Your task to perform on an android device: Open accessibility settings Image 0: 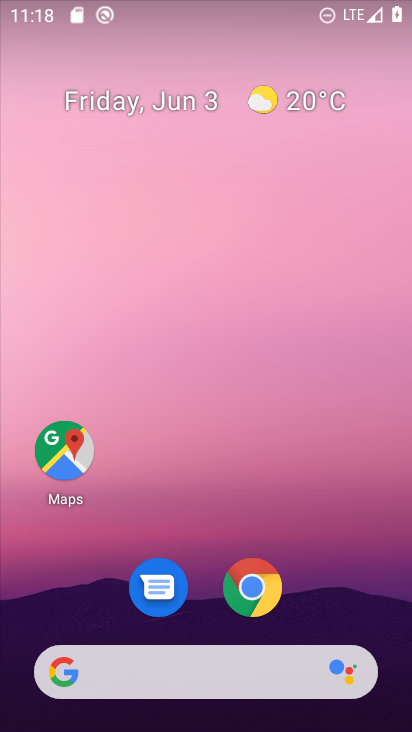
Step 0: drag from (378, 549) to (288, 10)
Your task to perform on an android device: Open accessibility settings Image 1: 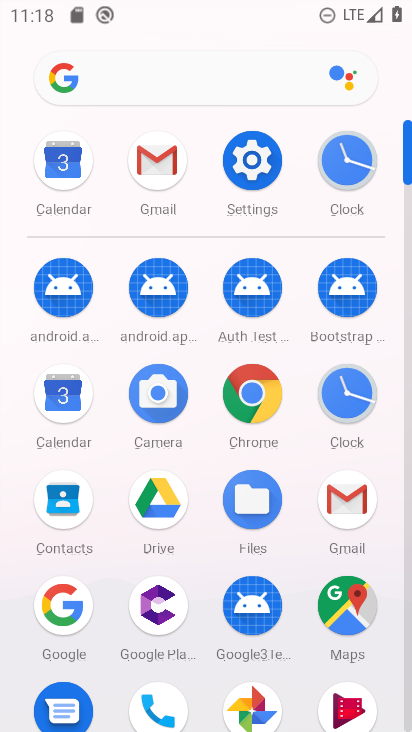
Step 1: click (253, 161)
Your task to perform on an android device: Open accessibility settings Image 2: 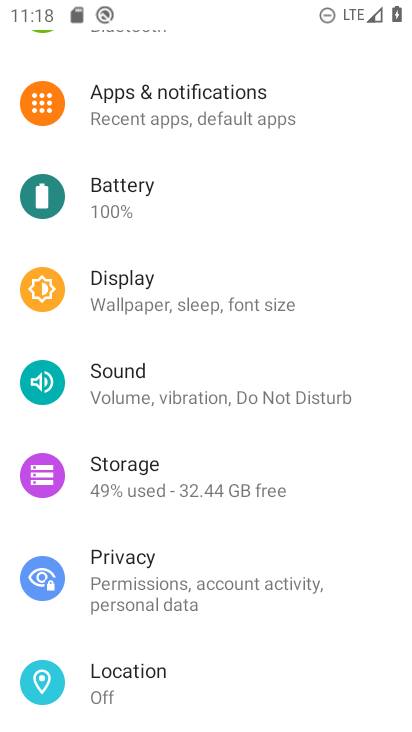
Step 2: drag from (242, 542) to (207, 21)
Your task to perform on an android device: Open accessibility settings Image 3: 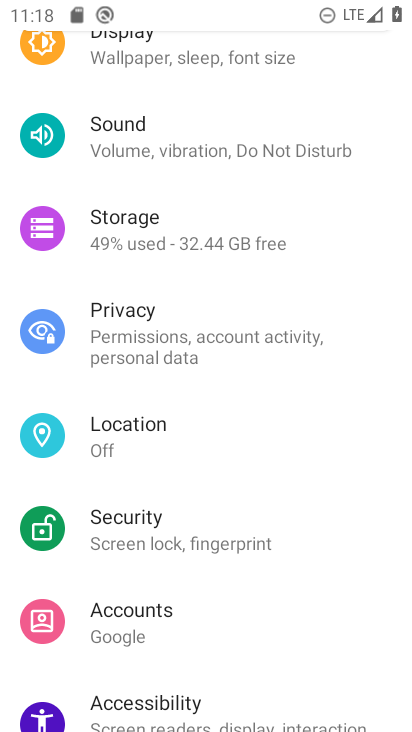
Step 3: click (196, 707)
Your task to perform on an android device: Open accessibility settings Image 4: 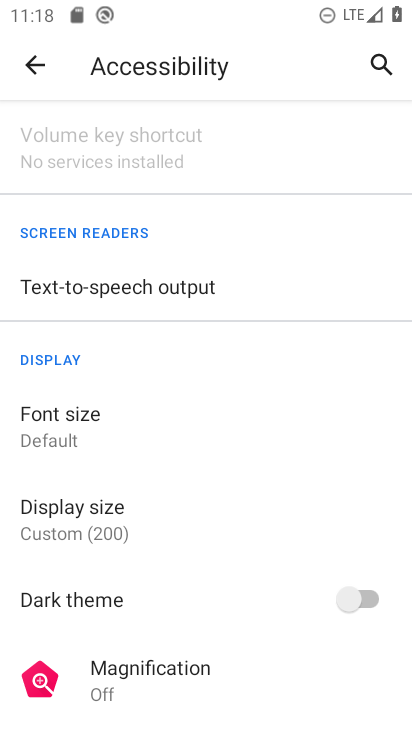
Step 4: task complete